Your task to perform on an android device: add a label to a message in the gmail app Image 0: 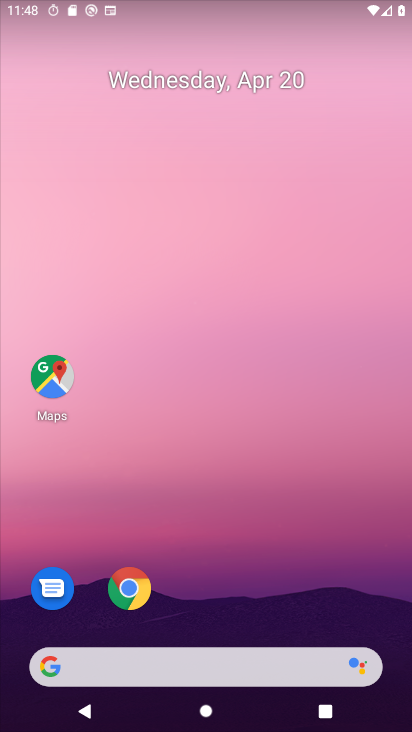
Step 0: drag from (207, 592) to (202, 65)
Your task to perform on an android device: add a label to a message in the gmail app Image 1: 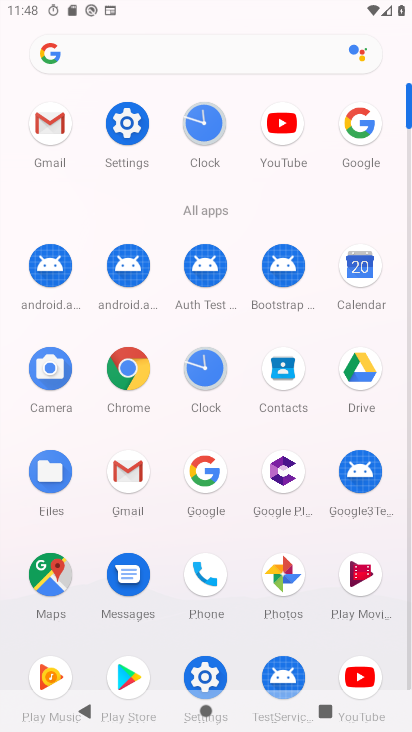
Step 1: click (125, 465)
Your task to perform on an android device: add a label to a message in the gmail app Image 2: 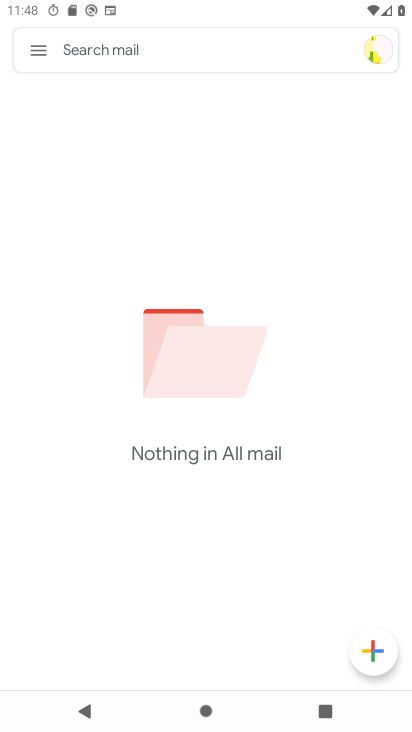
Step 2: click (36, 47)
Your task to perform on an android device: add a label to a message in the gmail app Image 3: 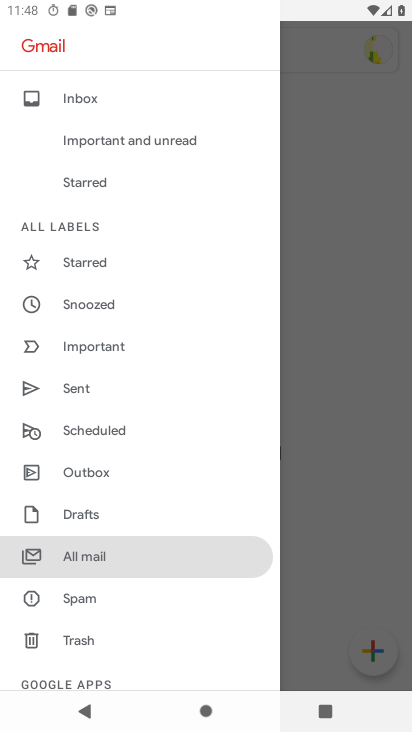
Step 3: click (107, 556)
Your task to perform on an android device: add a label to a message in the gmail app Image 4: 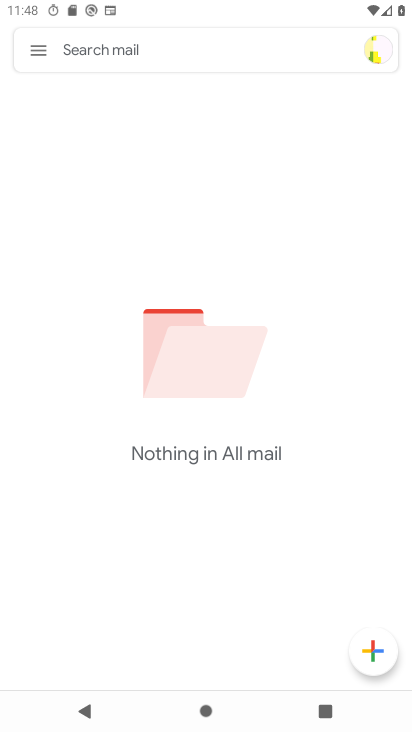
Step 4: task complete